Your task to perform on an android device: allow notifications from all sites in the chrome app Image 0: 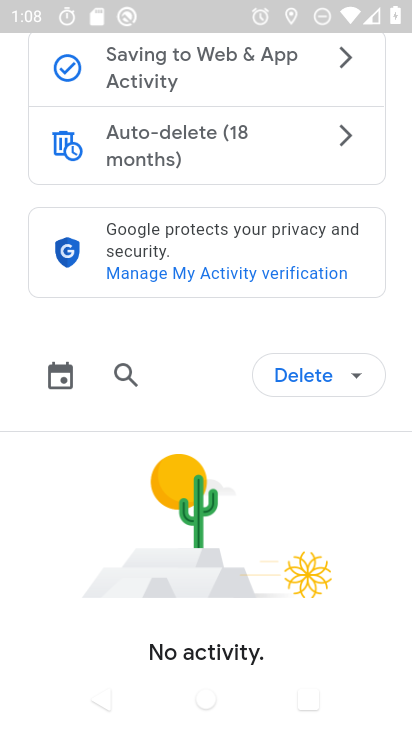
Step 0: press home button
Your task to perform on an android device: allow notifications from all sites in the chrome app Image 1: 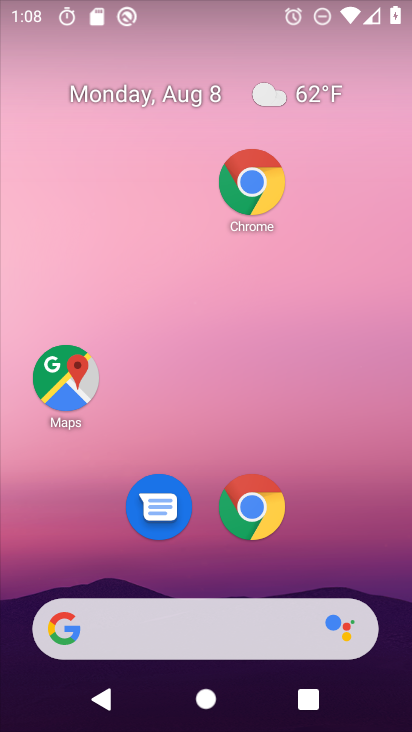
Step 1: drag from (339, 571) to (320, 72)
Your task to perform on an android device: allow notifications from all sites in the chrome app Image 2: 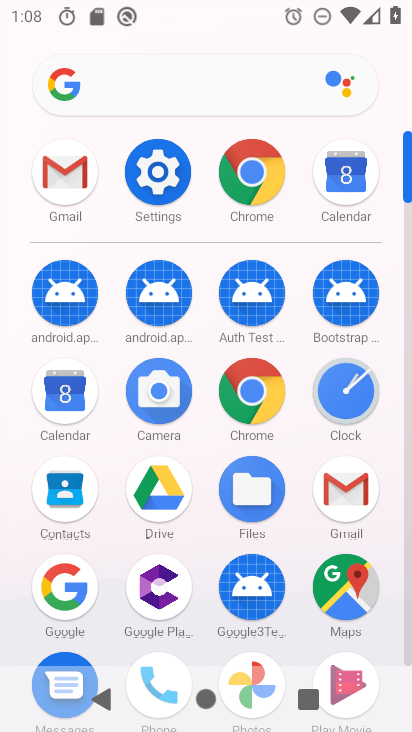
Step 2: click (254, 391)
Your task to perform on an android device: allow notifications from all sites in the chrome app Image 3: 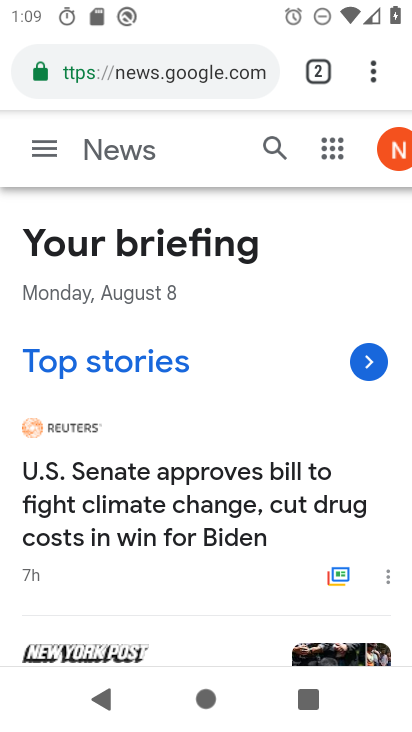
Step 3: drag from (384, 73) to (198, 508)
Your task to perform on an android device: allow notifications from all sites in the chrome app Image 4: 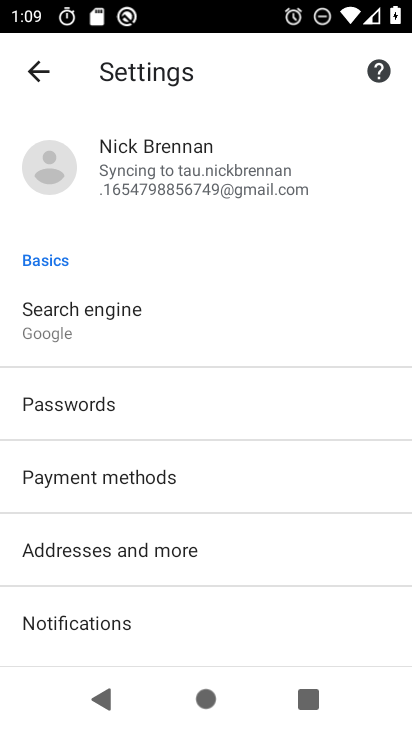
Step 4: drag from (211, 615) to (254, 242)
Your task to perform on an android device: allow notifications from all sites in the chrome app Image 5: 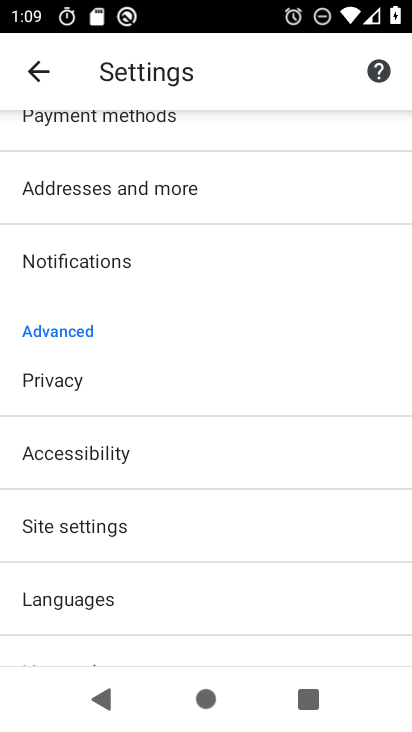
Step 5: click (107, 254)
Your task to perform on an android device: allow notifications from all sites in the chrome app Image 6: 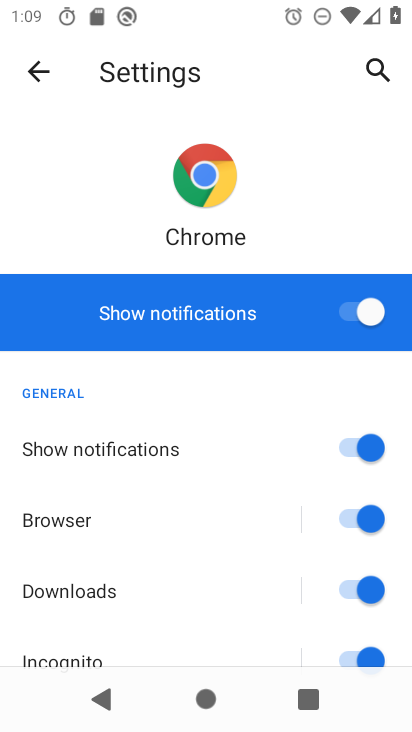
Step 6: task complete